Your task to perform on an android device: turn pop-ups off in chrome Image 0: 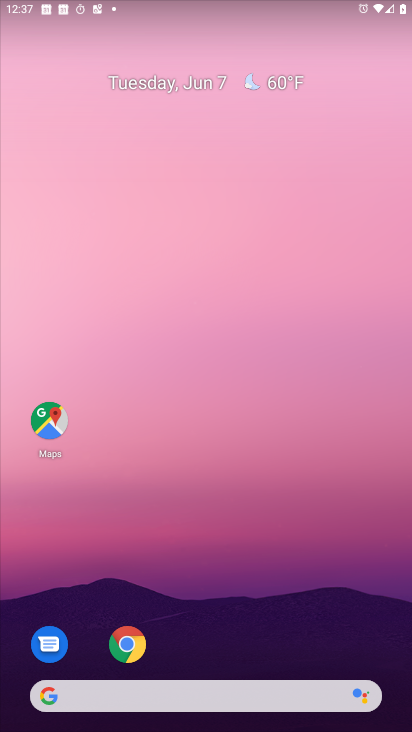
Step 0: click (135, 651)
Your task to perform on an android device: turn pop-ups off in chrome Image 1: 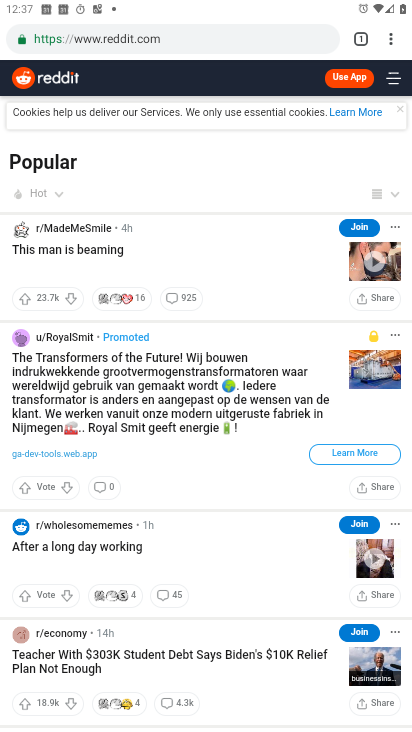
Step 1: click (389, 38)
Your task to perform on an android device: turn pop-ups off in chrome Image 2: 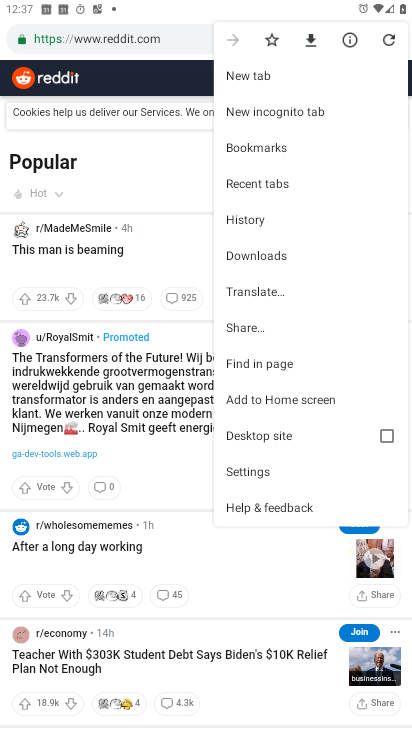
Step 2: click (258, 479)
Your task to perform on an android device: turn pop-ups off in chrome Image 3: 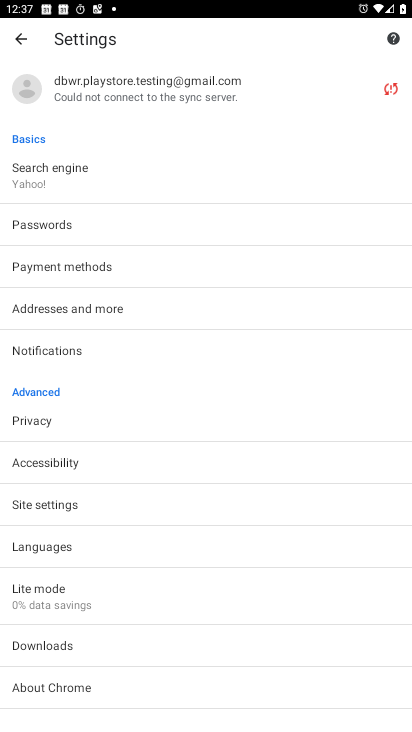
Step 3: click (60, 510)
Your task to perform on an android device: turn pop-ups off in chrome Image 4: 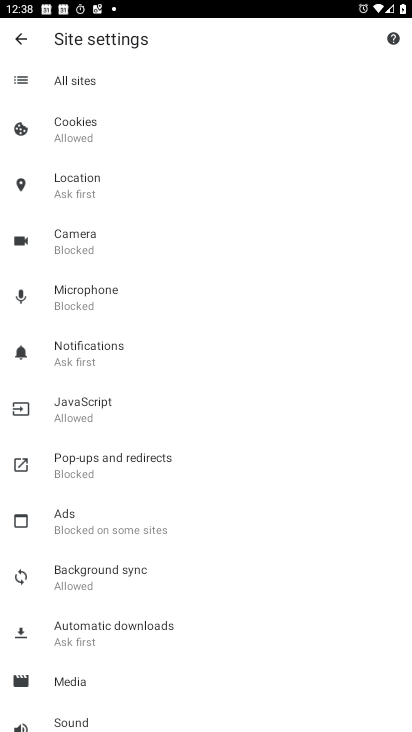
Step 4: click (74, 478)
Your task to perform on an android device: turn pop-ups off in chrome Image 5: 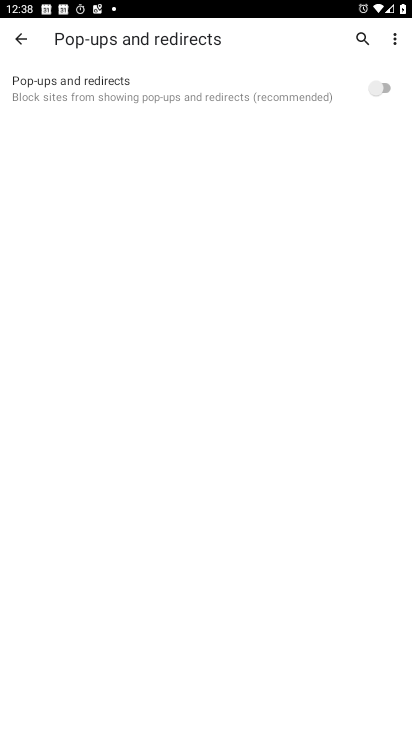
Step 5: task complete